Your task to perform on an android device: change the clock style Image 0: 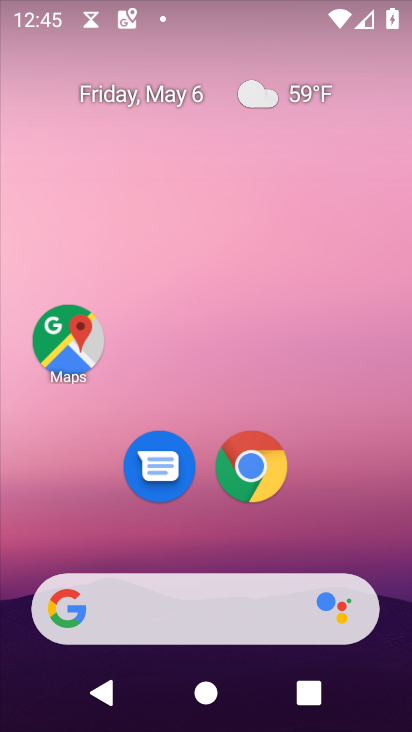
Step 0: drag from (386, 491) to (313, 12)
Your task to perform on an android device: change the clock style Image 1: 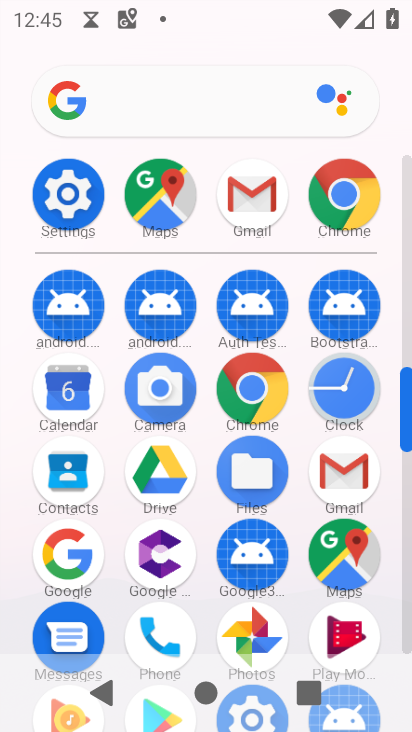
Step 1: click (316, 397)
Your task to perform on an android device: change the clock style Image 2: 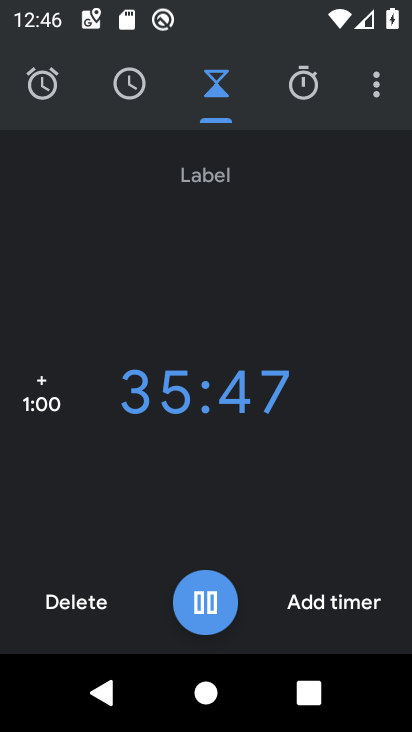
Step 2: click (374, 99)
Your task to perform on an android device: change the clock style Image 3: 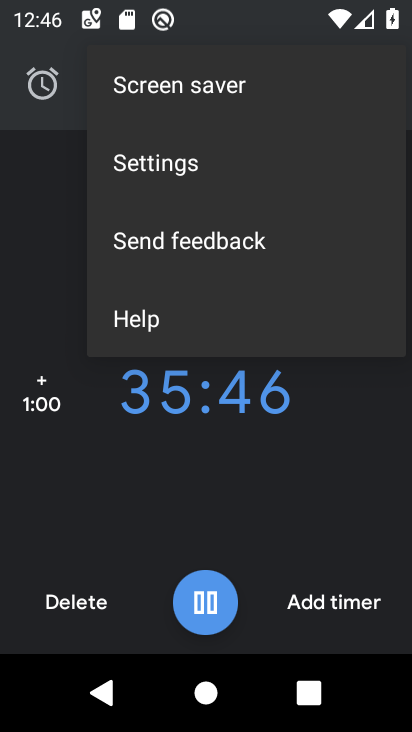
Step 3: click (306, 177)
Your task to perform on an android device: change the clock style Image 4: 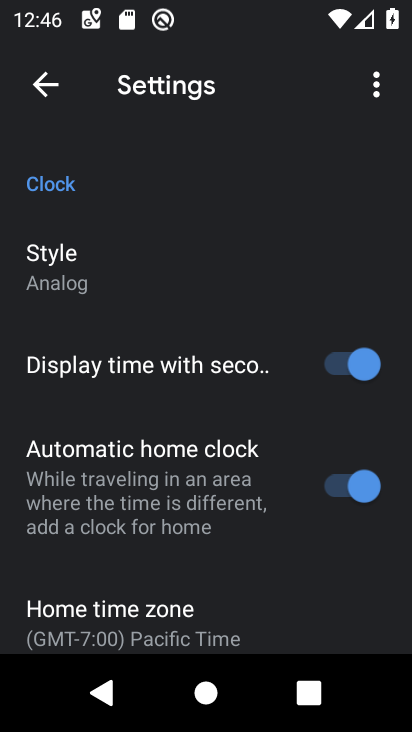
Step 4: click (263, 277)
Your task to perform on an android device: change the clock style Image 5: 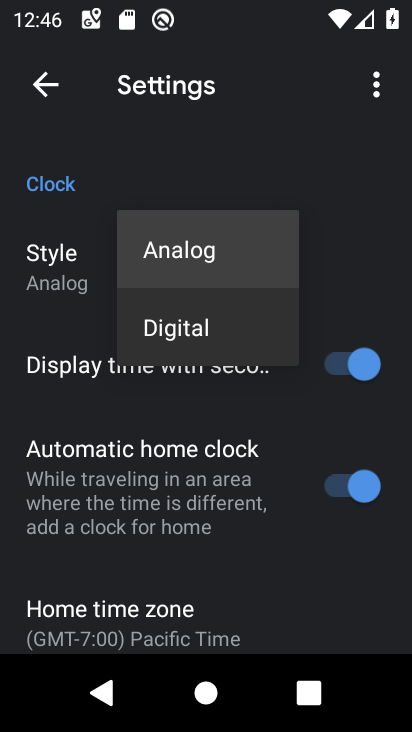
Step 5: click (232, 345)
Your task to perform on an android device: change the clock style Image 6: 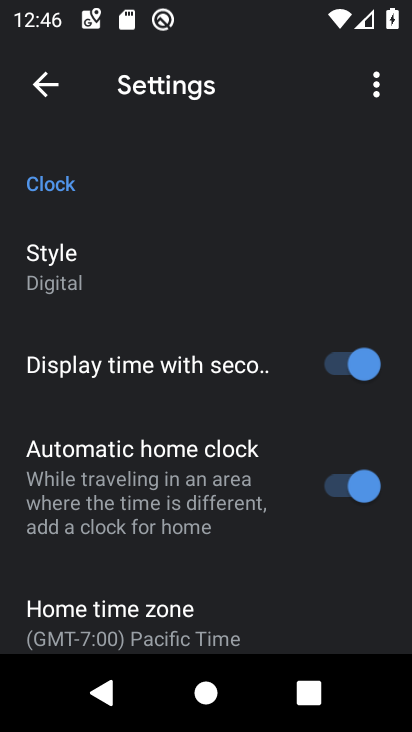
Step 6: task complete